Your task to perform on an android device: turn on sleep mode Image 0: 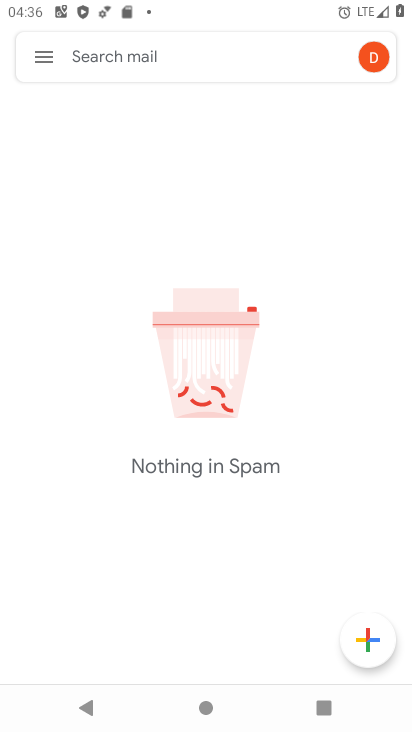
Step 0: press home button
Your task to perform on an android device: turn on sleep mode Image 1: 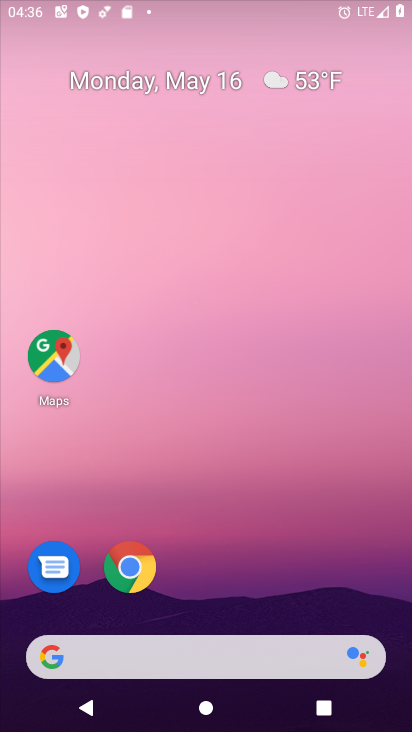
Step 1: drag from (205, 661) to (173, 17)
Your task to perform on an android device: turn on sleep mode Image 2: 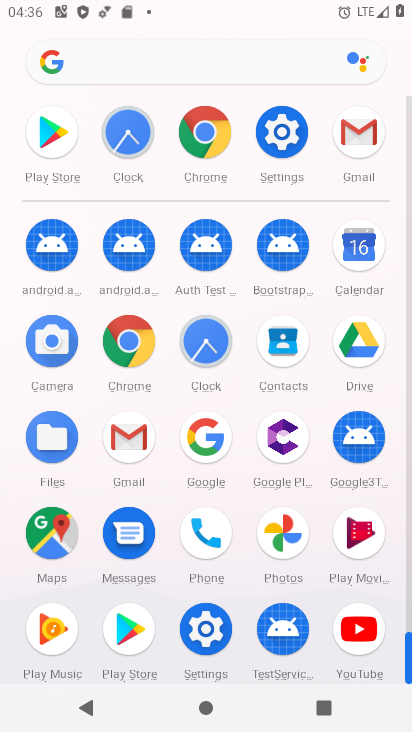
Step 2: click (286, 144)
Your task to perform on an android device: turn on sleep mode Image 3: 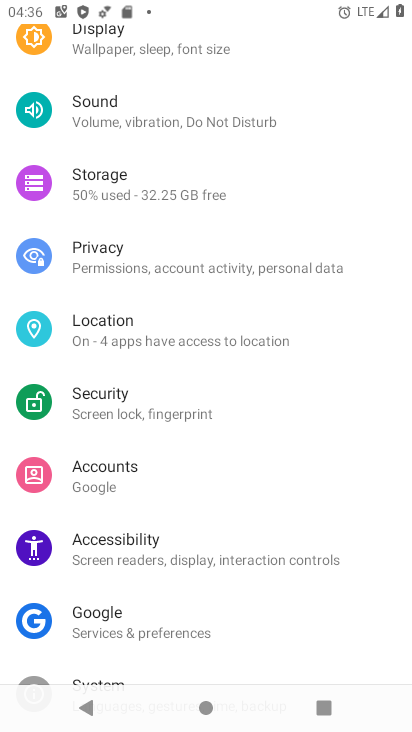
Step 3: drag from (218, 170) to (259, 658)
Your task to perform on an android device: turn on sleep mode Image 4: 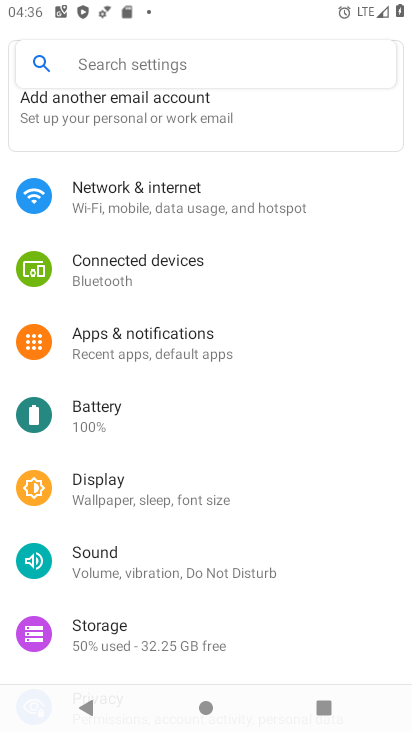
Step 4: click (149, 505)
Your task to perform on an android device: turn on sleep mode Image 5: 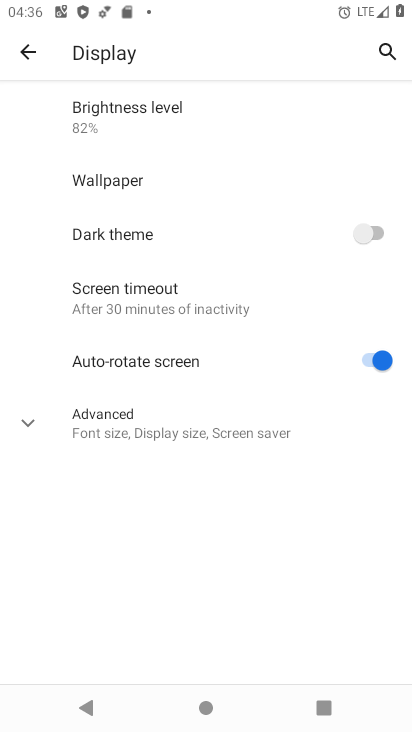
Step 5: task complete